Your task to perform on an android device: search for starred emails in the gmail app Image 0: 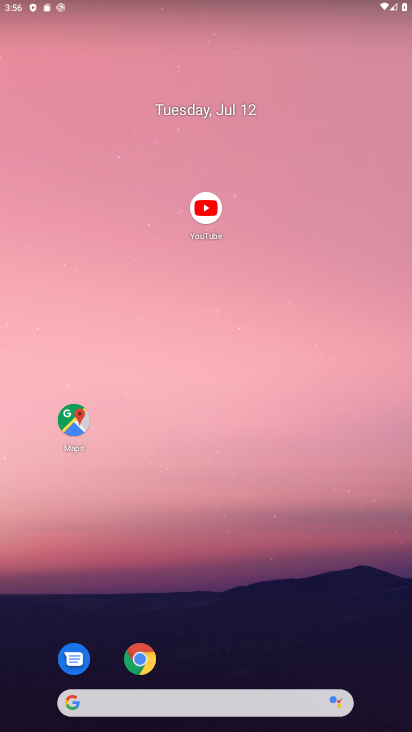
Step 0: drag from (257, 690) to (121, 75)
Your task to perform on an android device: search for starred emails in the gmail app Image 1: 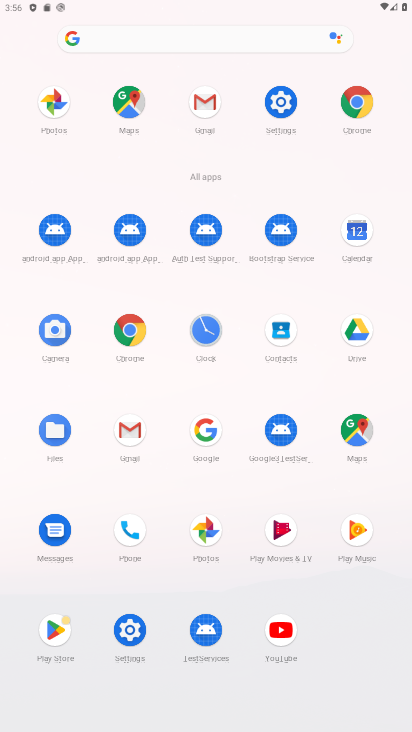
Step 1: click (128, 433)
Your task to perform on an android device: search for starred emails in the gmail app Image 2: 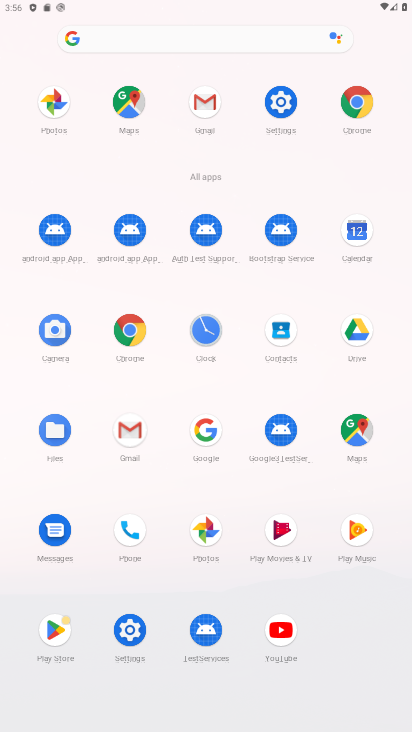
Step 2: click (128, 433)
Your task to perform on an android device: search for starred emails in the gmail app Image 3: 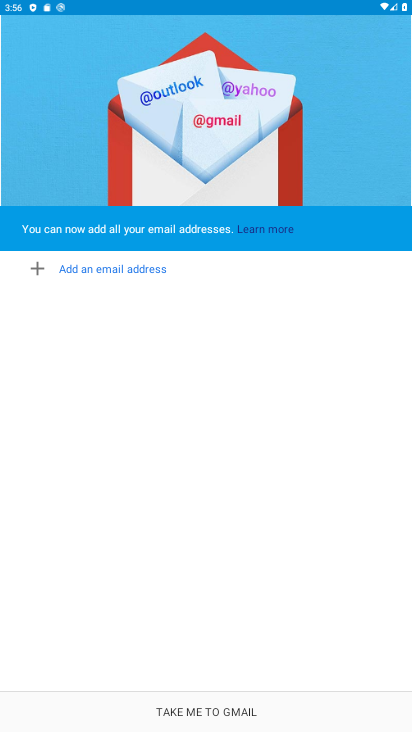
Step 3: click (231, 710)
Your task to perform on an android device: search for starred emails in the gmail app Image 4: 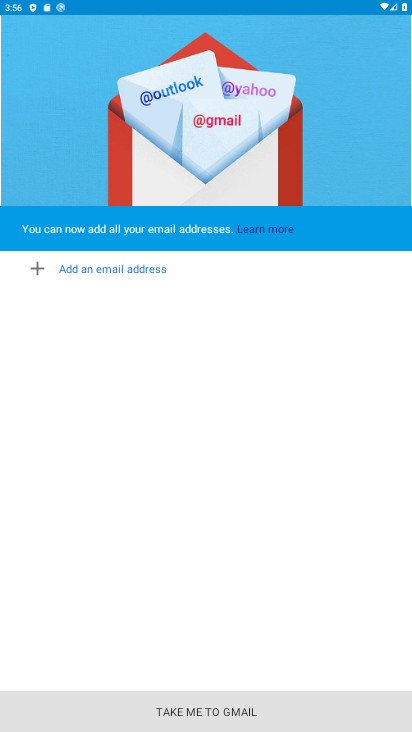
Step 4: click (235, 708)
Your task to perform on an android device: search for starred emails in the gmail app Image 5: 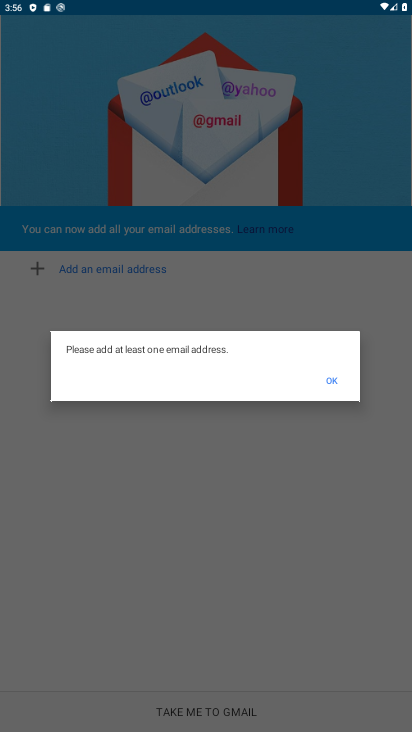
Step 5: click (324, 368)
Your task to perform on an android device: search for starred emails in the gmail app Image 6: 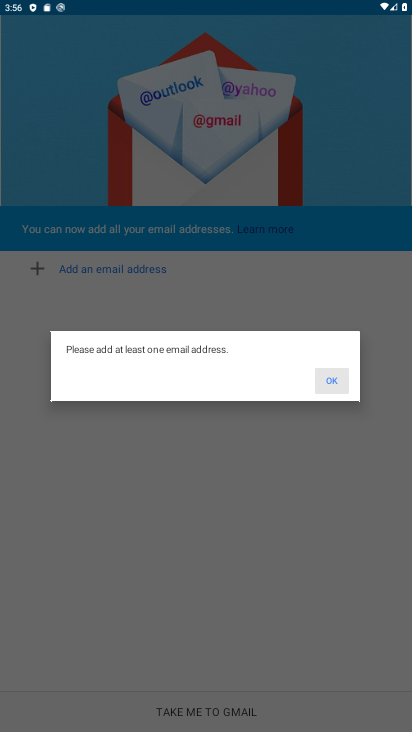
Step 6: click (338, 387)
Your task to perform on an android device: search for starred emails in the gmail app Image 7: 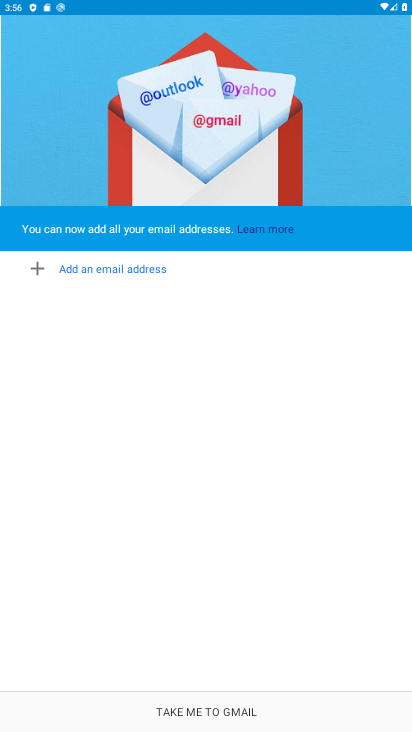
Step 7: click (339, 388)
Your task to perform on an android device: search for starred emails in the gmail app Image 8: 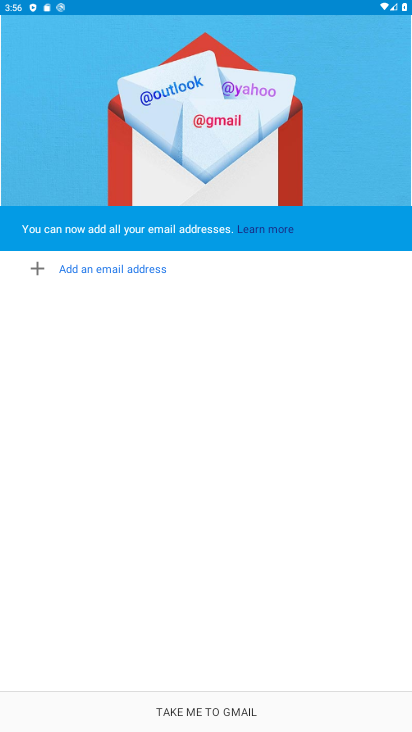
Step 8: click (214, 716)
Your task to perform on an android device: search for starred emails in the gmail app Image 9: 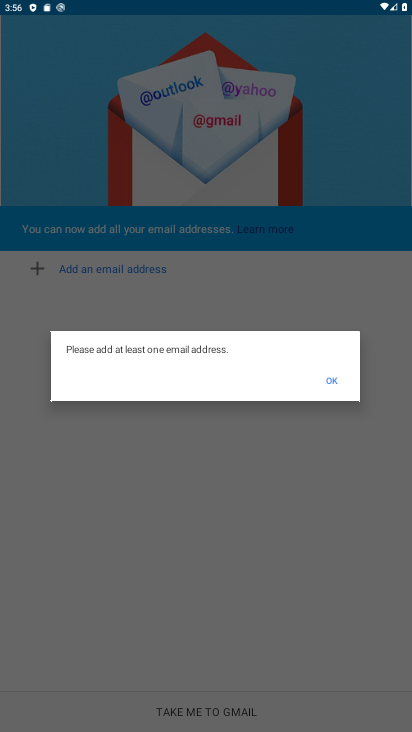
Step 9: click (334, 378)
Your task to perform on an android device: search for starred emails in the gmail app Image 10: 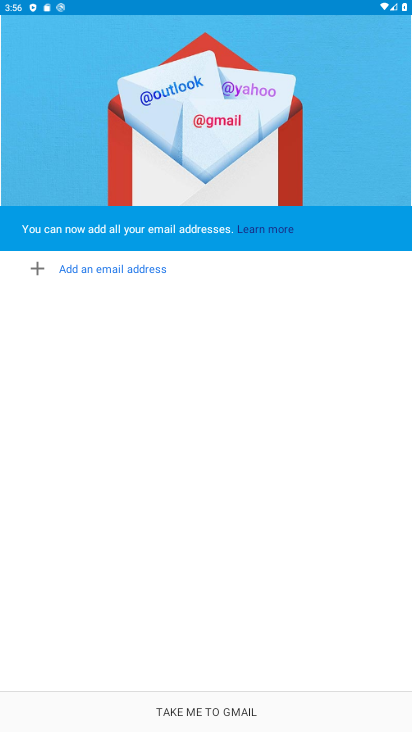
Step 10: click (41, 264)
Your task to perform on an android device: search for starred emails in the gmail app Image 11: 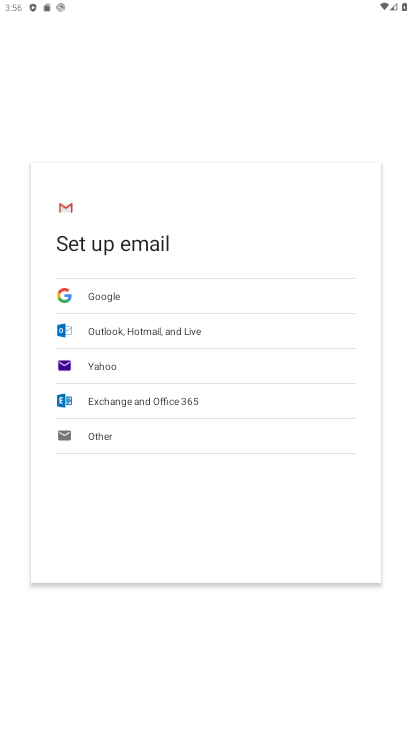
Step 11: click (200, 146)
Your task to perform on an android device: search for starred emails in the gmail app Image 12: 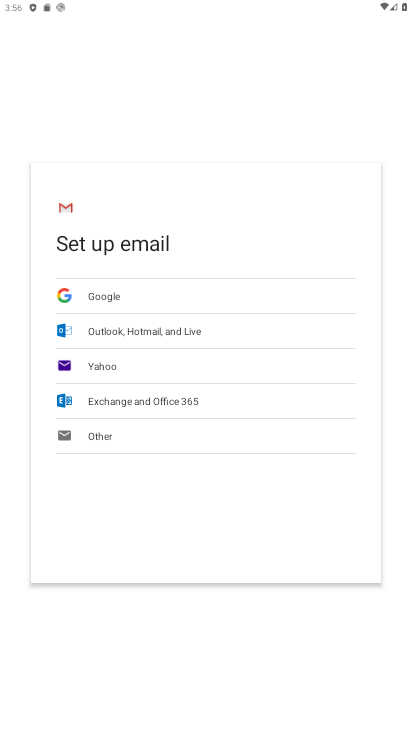
Step 12: task complete